Your task to perform on an android device: Go to Google Image 0: 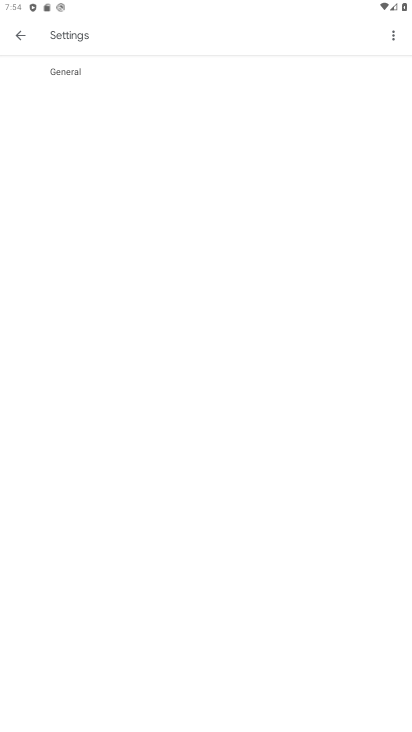
Step 0: click (22, 36)
Your task to perform on an android device: Go to Google Image 1: 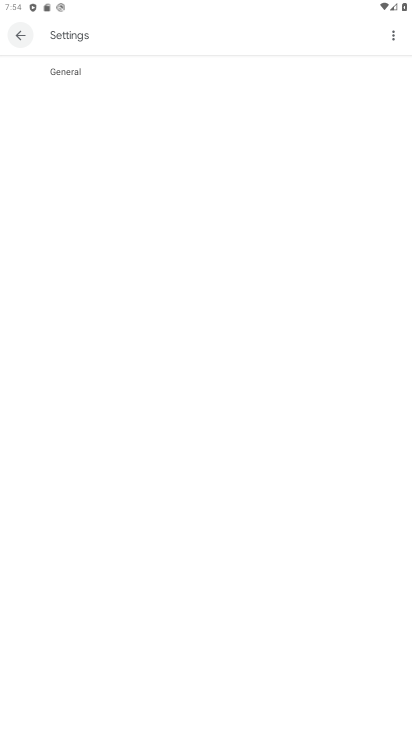
Step 1: click (22, 36)
Your task to perform on an android device: Go to Google Image 2: 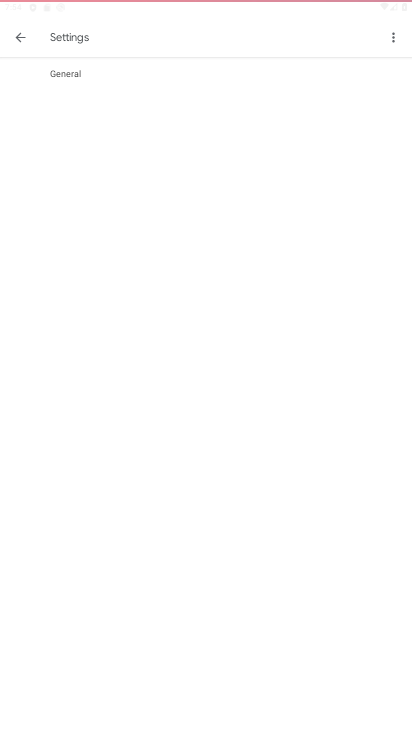
Step 2: click (28, 38)
Your task to perform on an android device: Go to Google Image 3: 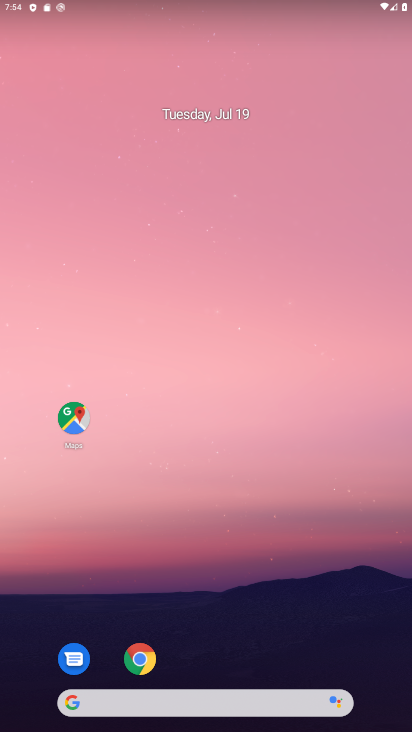
Step 3: drag from (232, 653) to (160, 184)
Your task to perform on an android device: Go to Google Image 4: 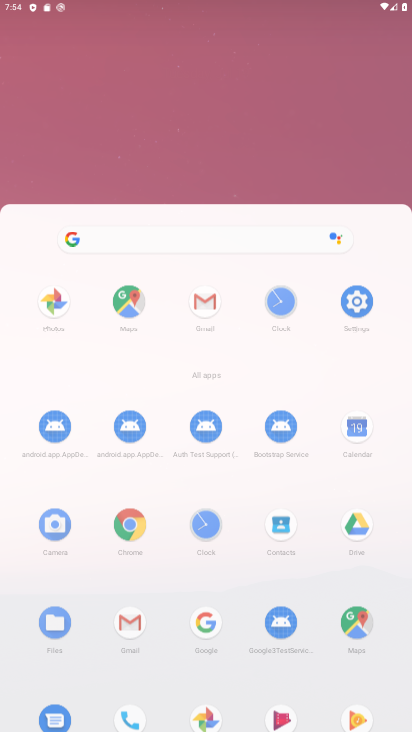
Step 4: drag from (194, 511) to (174, 96)
Your task to perform on an android device: Go to Google Image 5: 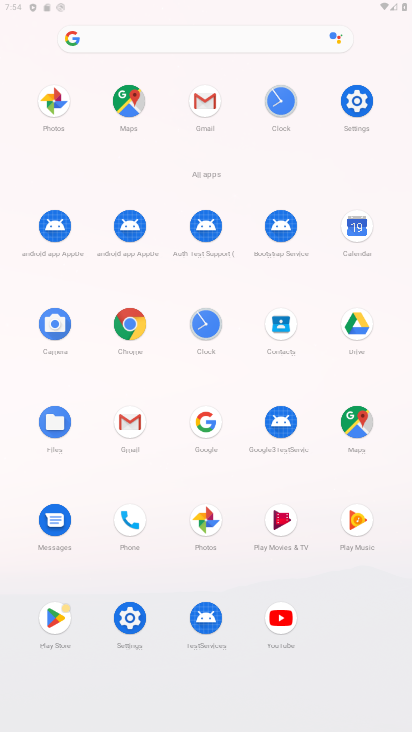
Step 5: drag from (214, 472) to (205, 58)
Your task to perform on an android device: Go to Google Image 6: 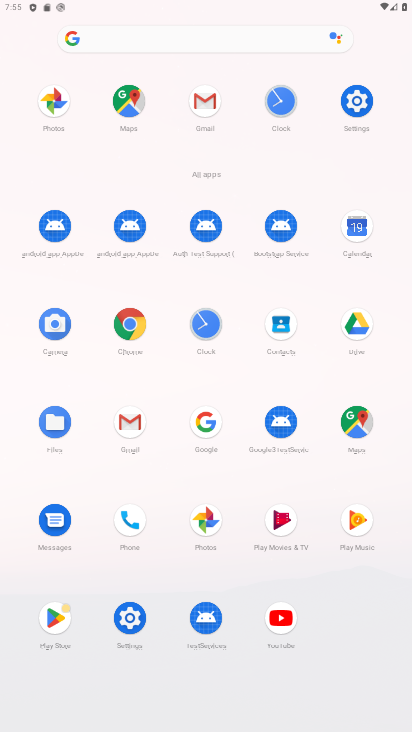
Step 6: click (208, 437)
Your task to perform on an android device: Go to Google Image 7: 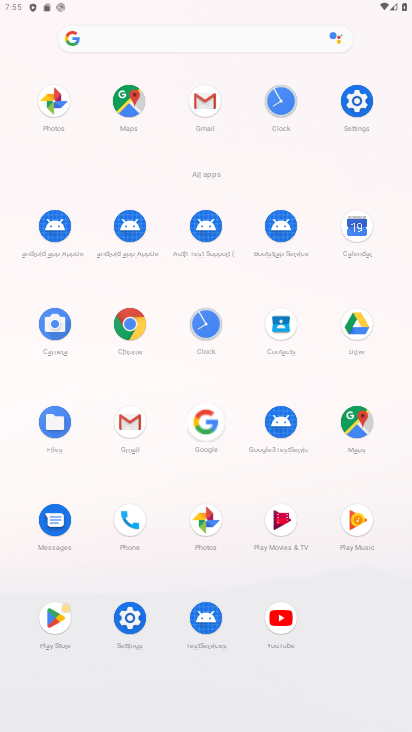
Step 7: click (208, 437)
Your task to perform on an android device: Go to Google Image 8: 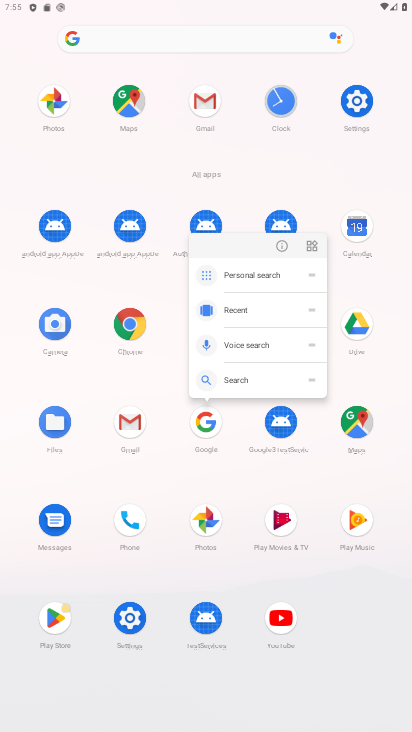
Step 8: click (210, 436)
Your task to perform on an android device: Go to Google Image 9: 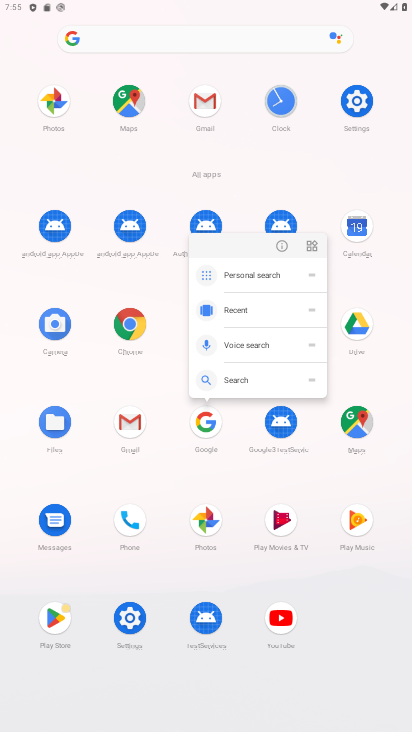
Step 9: click (210, 436)
Your task to perform on an android device: Go to Google Image 10: 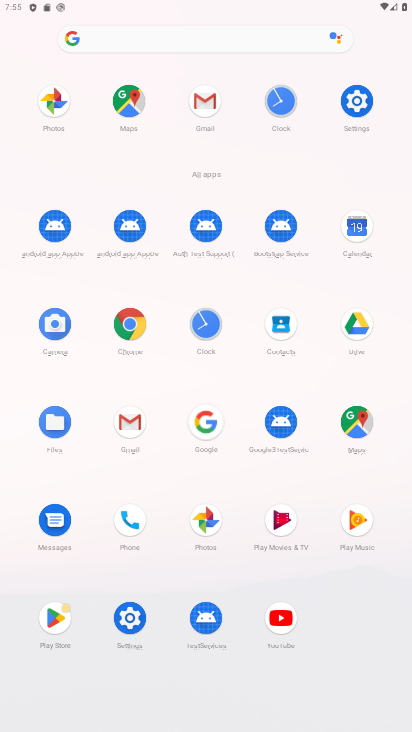
Step 10: click (210, 435)
Your task to perform on an android device: Go to Google Image 11: 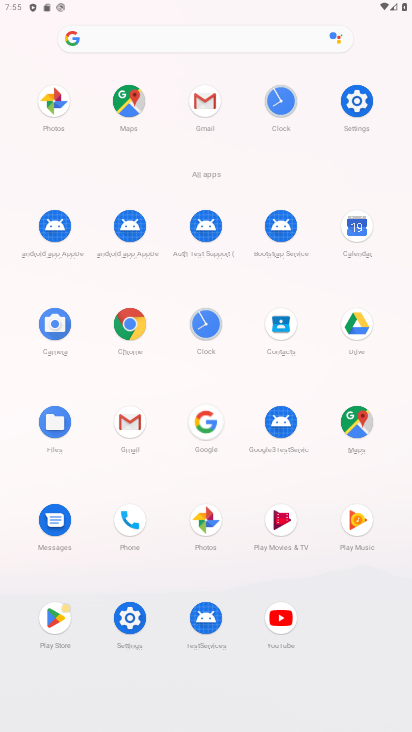
Step 11: click (210, 428)
Your task to perform on an android device: Go to Google Image 12: 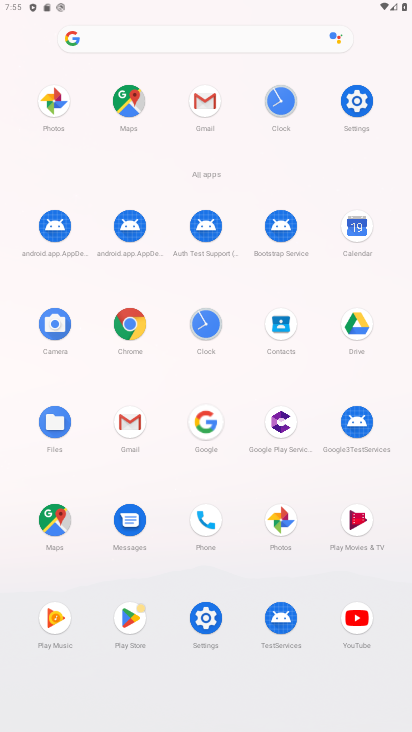
Step 12: click (210, 428)
Your task to perform on an android device: Go to Google Image 13: 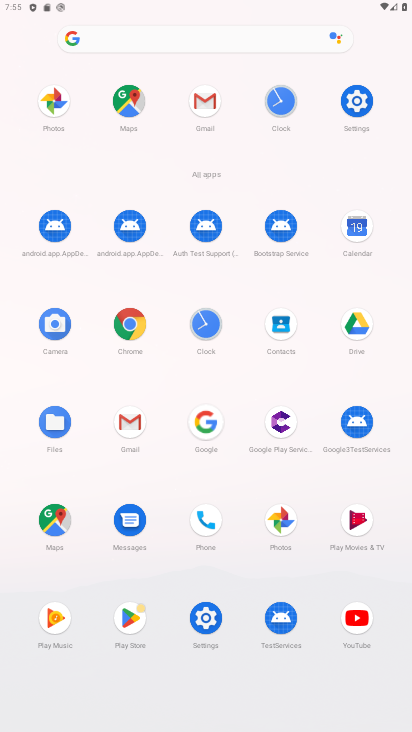
Step 13: click (202, 426)
Your task to perform on an android device: Go to Google Image 14: 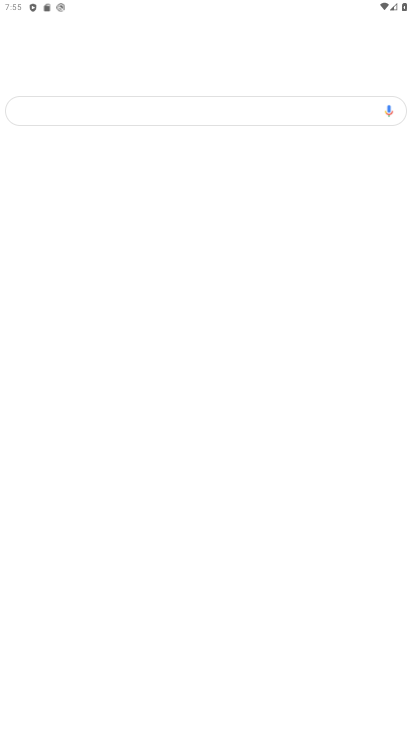
Step 14: click (207, 429)
Your task to perform on an android device: Go to Google Image 15: 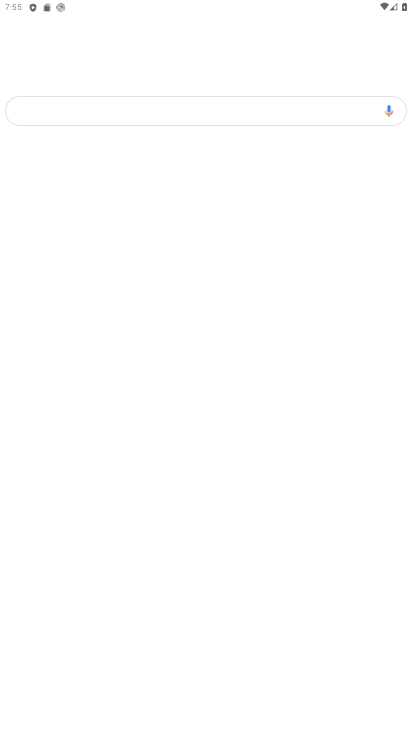
Step 15: click (209, 431)
Your task to perform on an android device: Go to Google Image 16: 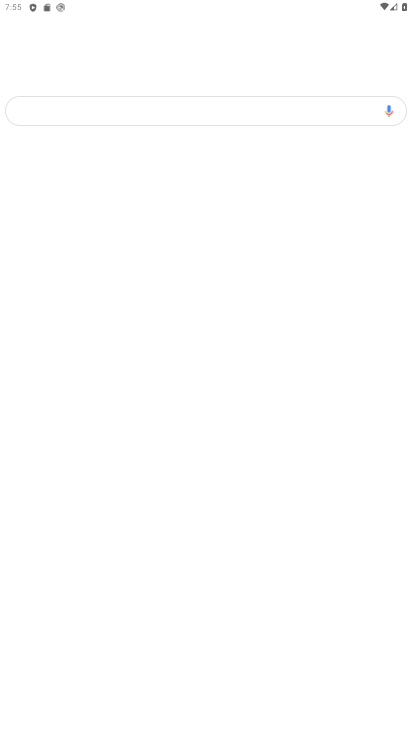
Step 16: click (207, 432)
Your task to perform on an android device: Go to Google Image 17: 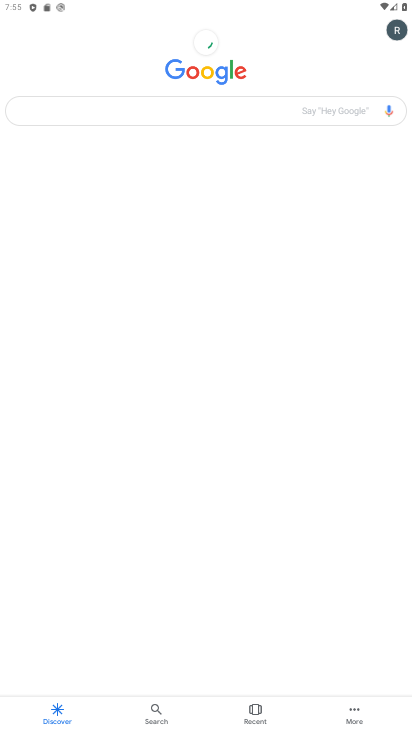
Step 17: task complete